Your task to perform on an android device: refresh tabs in the chrome app Image 0: 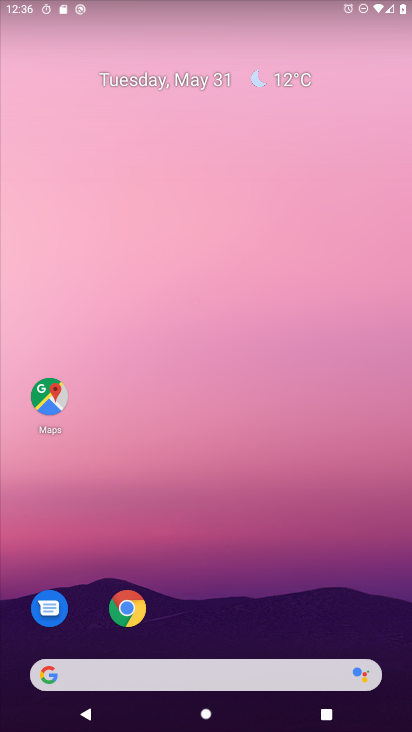
Step 0: click (131, 610)
Your task to perform on an android device: refresh tabs in the chrome app Image 1: 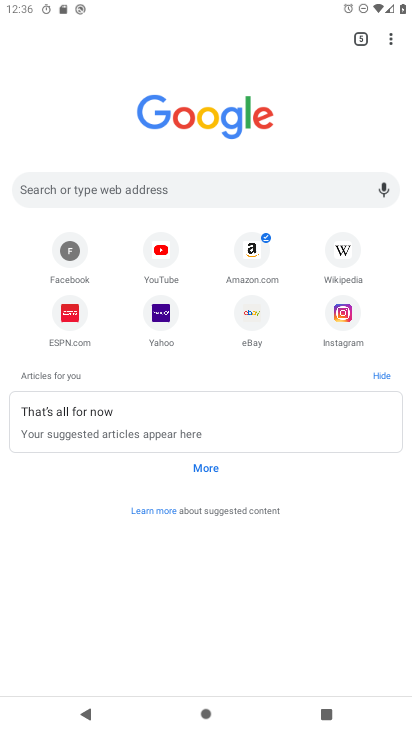
Step 1: click (389, 36)
Your task to perform on an android device: refresh tabs in the chrome app Image 2: 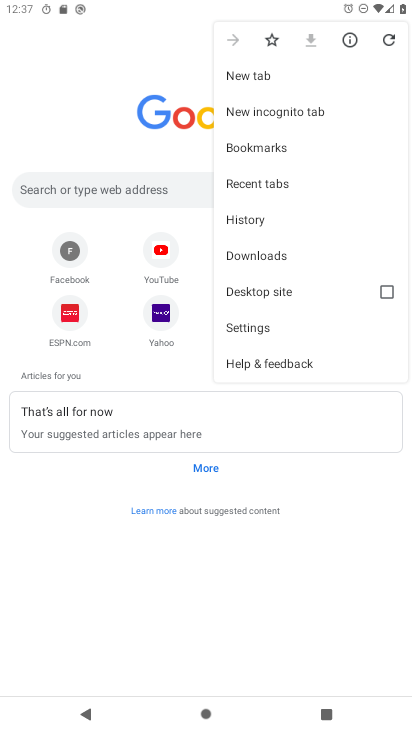
Step 2: click (389, 36)
Your task to perform on an android device: refresh tabs in the chrome app Image 3: 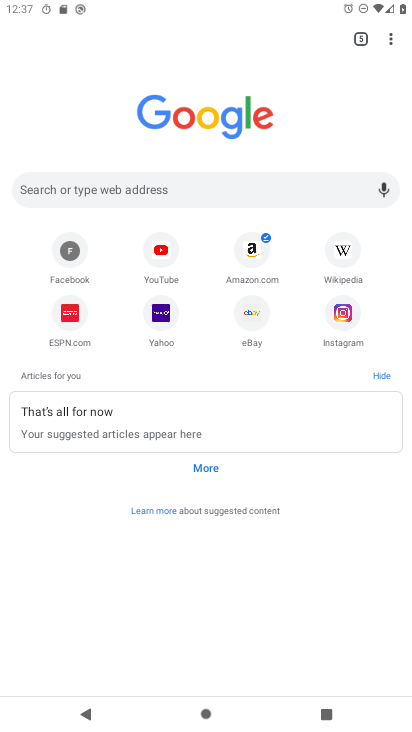
Step 3: task complete